Your task to perform on an android device: Search for seafood restaurants on Google Maps Image 0: 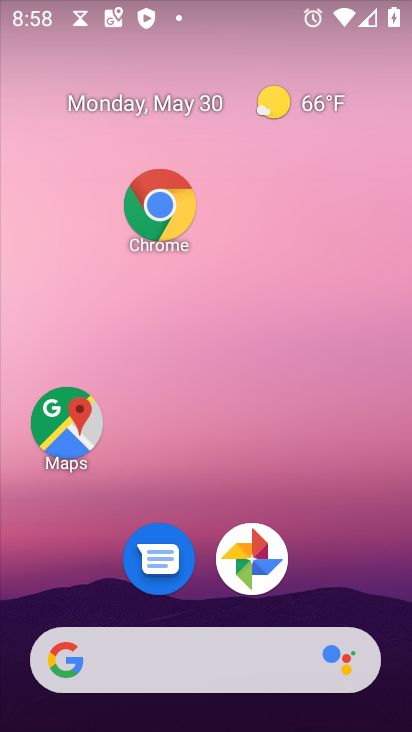
Step 0: drag from (264, 484) to (231, 249)
Your task to perform on an android device: Search for seafood restaurants on Google Maps Image 1: 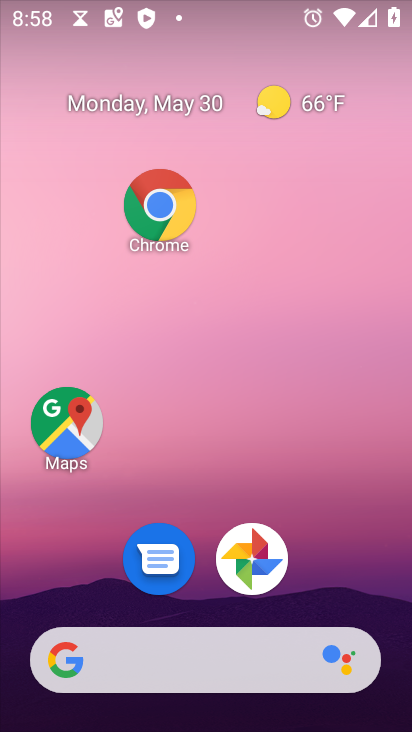
Step 1: drag from (230, 698) to (148, 246)
Your task to perform on an android device: Search for seafood restaurants on Google Maps Image 2: 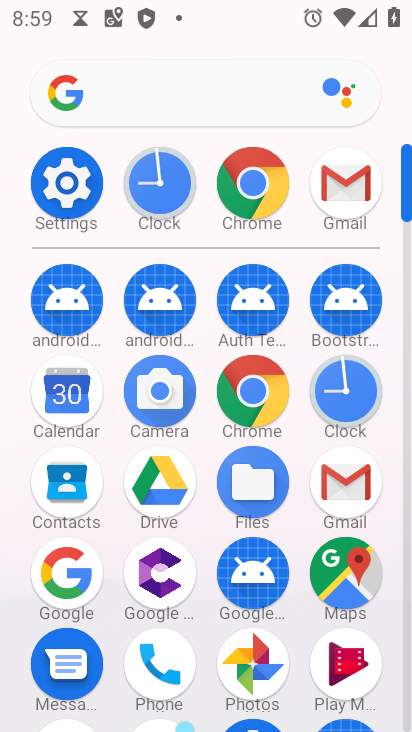
Step 2: click (61, 585)
Your task to perform on an android device: Search for seafood restaurants on Google Maps Image 3: 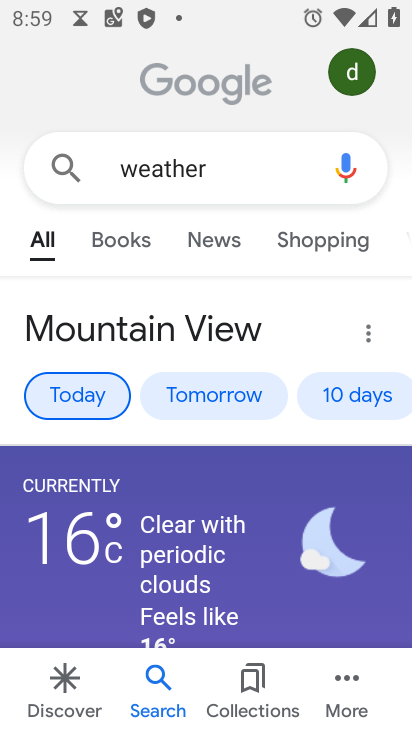
Step 3: press back button
Your task to perform on an android device: Search for seafood restaurants on Google Maps Image 4: 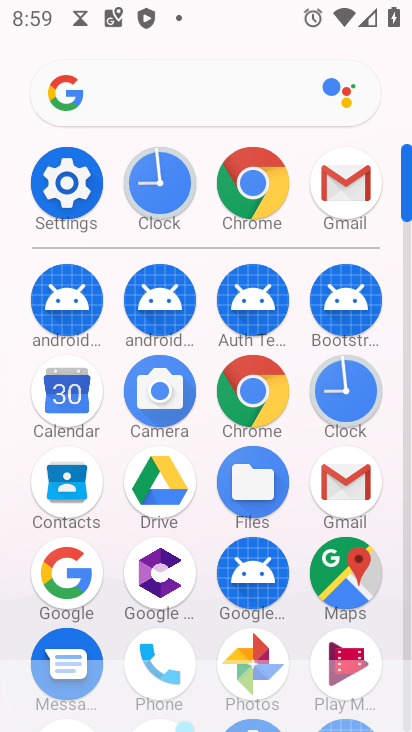
Step 4: click (345, 564)
Your task to perform on an android device: Search for seafood restaurants on Google Maps Image 5: 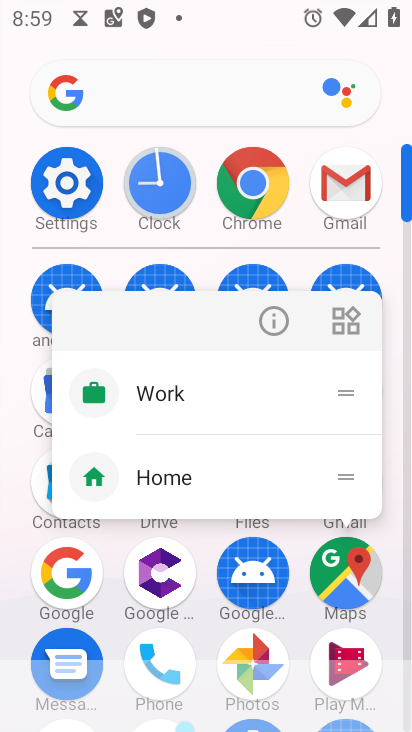
Step 5: click (339, 564)
Your task to perform on an android device: Search for seafood restaurants on Google Maps Image 6: 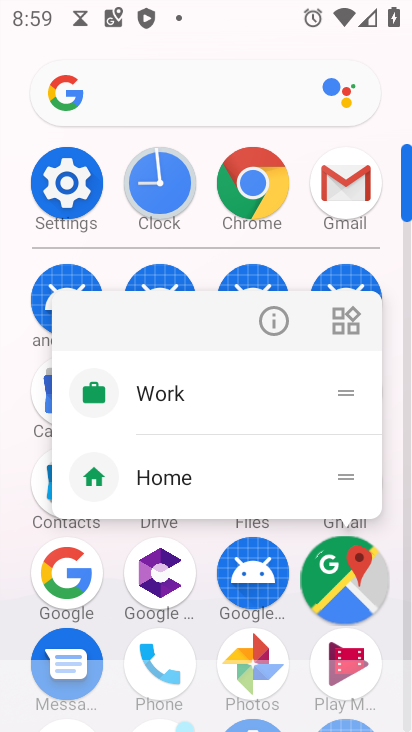
Step 6: click (338, 572)
Your task to perform on an android device: Search for seafood restaurants on Google Maps Image 7: 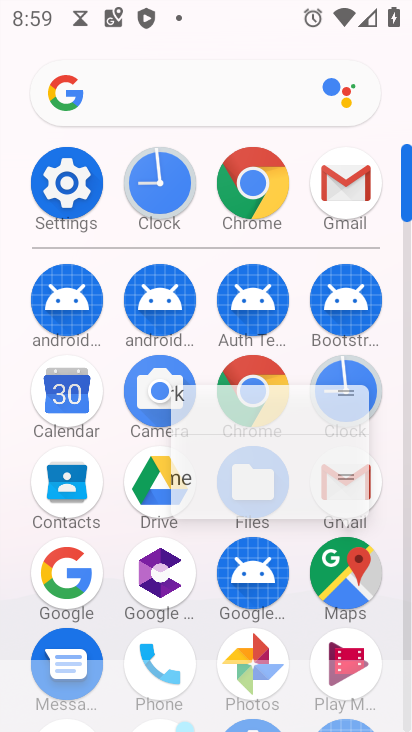
Step 7: click (339, 581)
Your task to perform on an android device: Search for seafood restaurants on Google Maps Image 8: 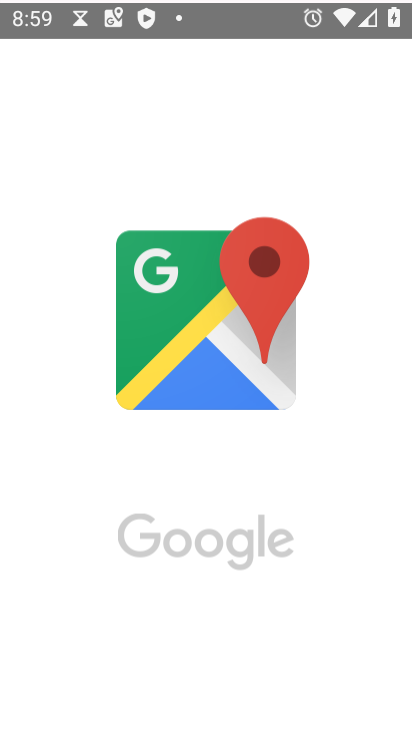
Step 8: click (339, 583)
Your task to perform on an android device: Search for seafood restaurants on Google Maps Image 9: 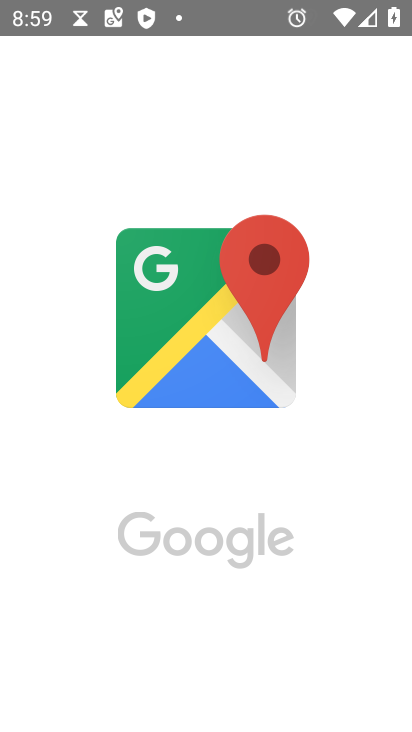
Step 9: click (339, 582)
Your task to perform on an android device: Search for seafood restaurants on Google Maps Image 10: 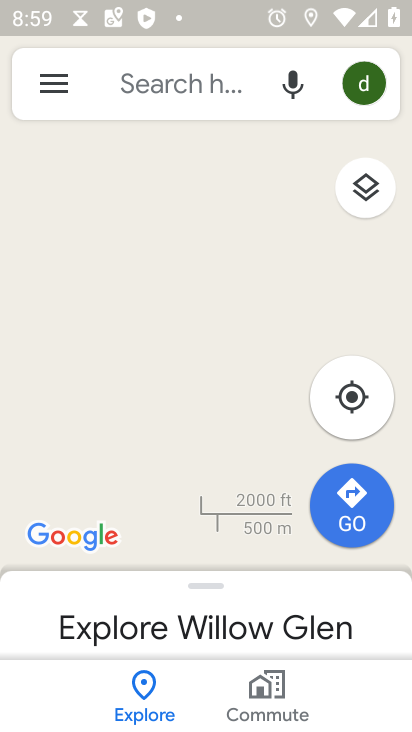
Step 10: click (122, 91)
Your task to perform on an android device: Search for seafood restaurants on Google Maps Image 11: 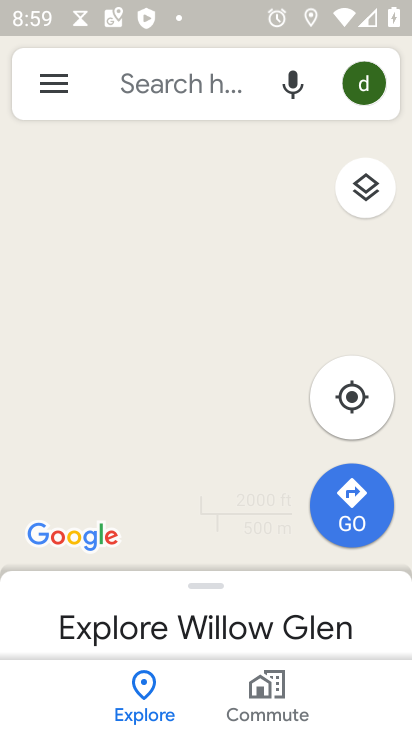
Step 11: click (130, 95)
Your task to perform on an android device: Search for seafood restaurants on Google Maps Image 12: 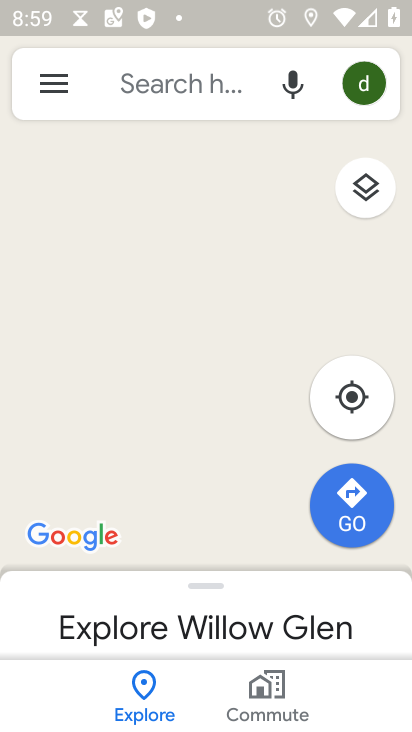
Step 12: click (137, 98)
Your task to perform on an android device: Search for seafood restaurants on Google Maps Image 13: 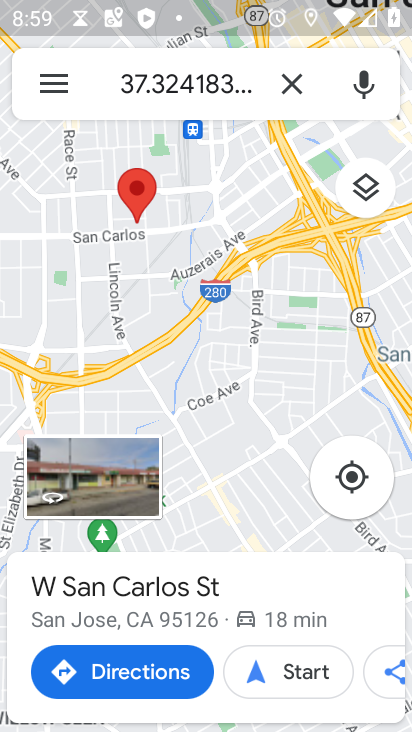
Step 13: drag from (214, 555) to (187, 218)
Your task to perform on an android device: Search for seafood restaurants on Google Maps Image 14: 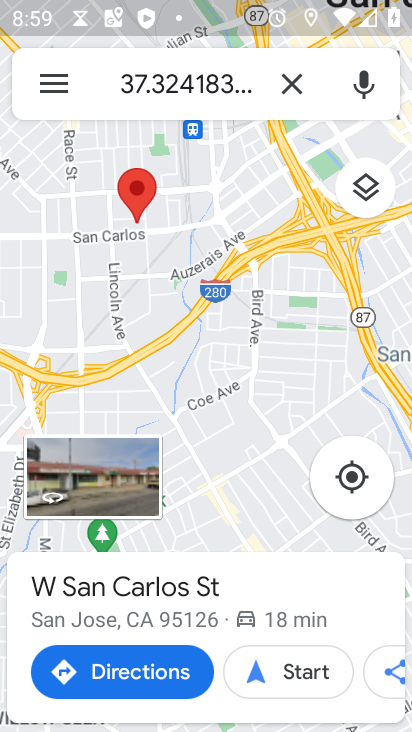
Step 14: drag from (209, 384) to (204, 119)
Your task to perform on an android device: Search for seafood restaurants on Google Maps Image 15: 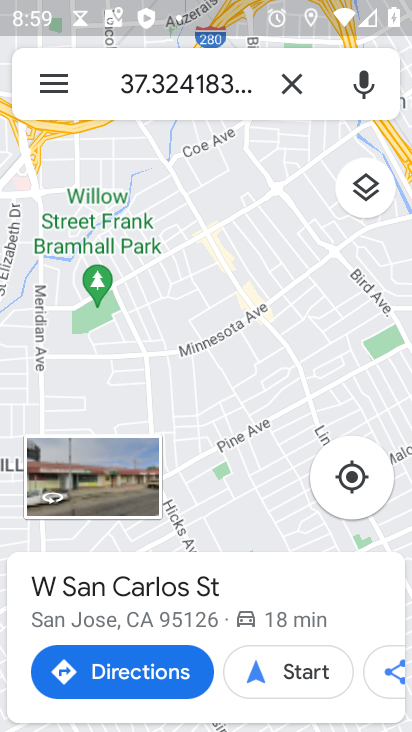
Step 15: click (290, 82)
Your task to perform on an android device: Search for seafood restaurants on Google Maps Image 16: 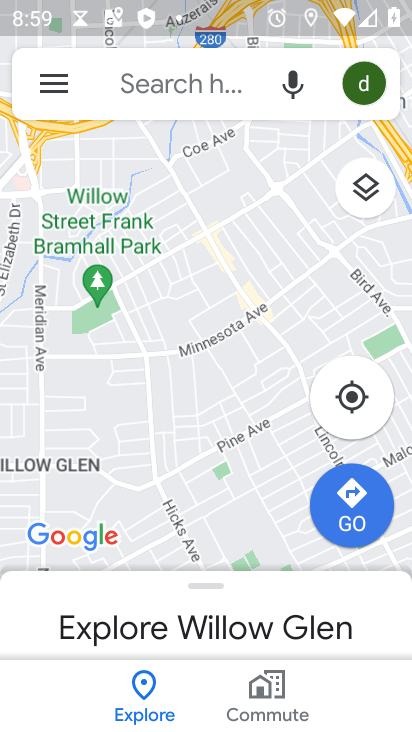
Step 16: click (126, 77)
Your task to perform on an android device: Search for seafood restaurants on Google Maps Image 17: 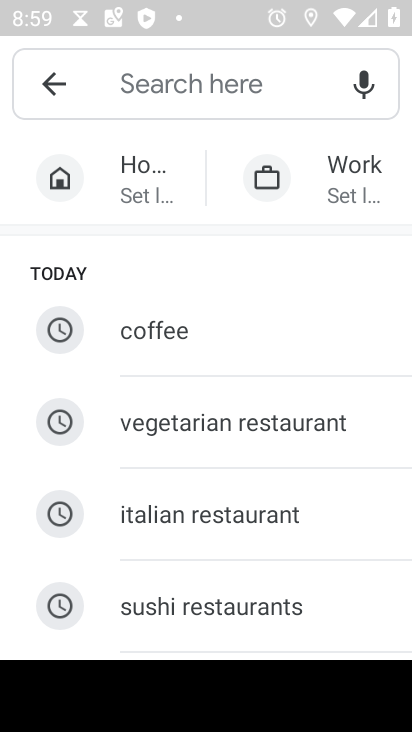
Step 17: type "seafood restaurants"
Your task to perform on an android device: Search for seafood restaurants on Google Maps Image 18: 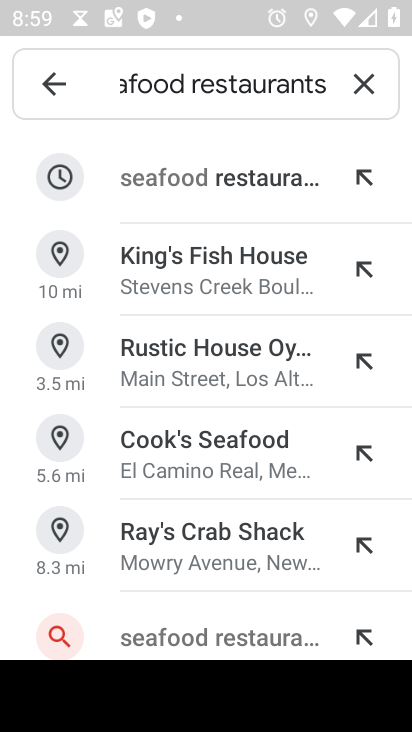
Step 18: click (258, 188)
Your task to perform on an android device: Search for seafood restaurants on Google Maps Image 19: 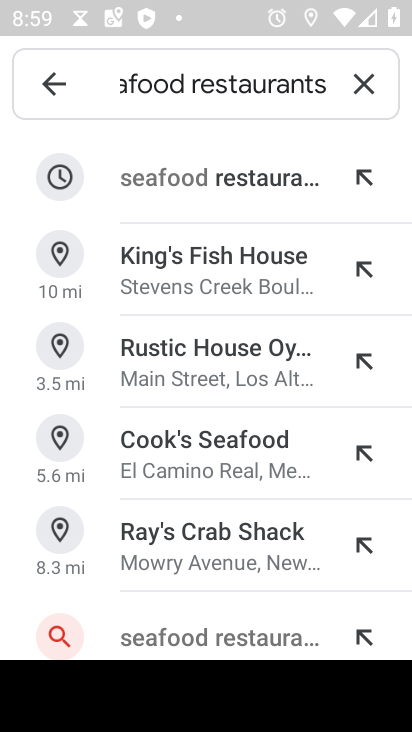
Step 19: click (258, 188)
Your task to perform on an android device: Search for seafood restaurants on Google Maps Image 20: 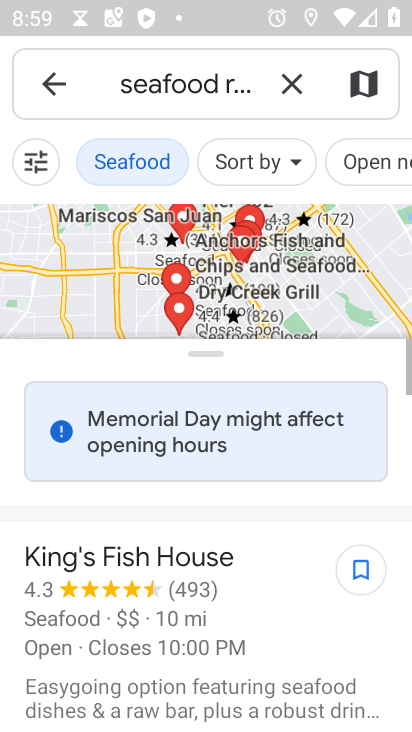
Step 20: task complete